Your task to perform on an android device: see sites visited before in the chrome app Image 0: 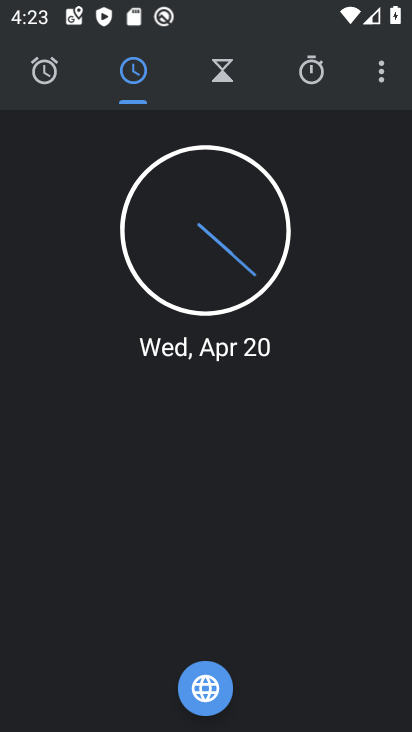
Step 0: press home button
Your task to perform on an android device: see sites visited before in the chrome app Image 1: 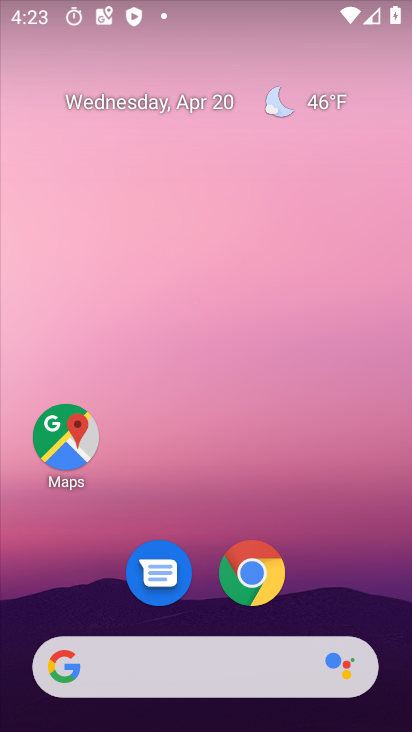
Step 1: click (263, 573)
Your task to perform on an android device: see sites visited before in the chrome app Image 2: 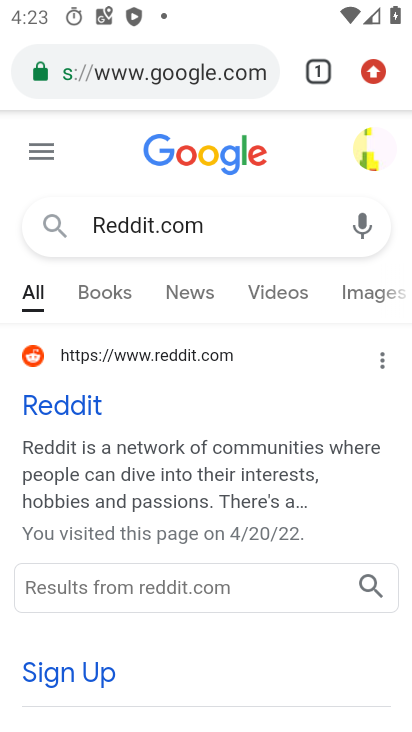
Step 2: click (369, 64)
Your task to perform on an android device: see sites visited before in the chrome app Image 3: 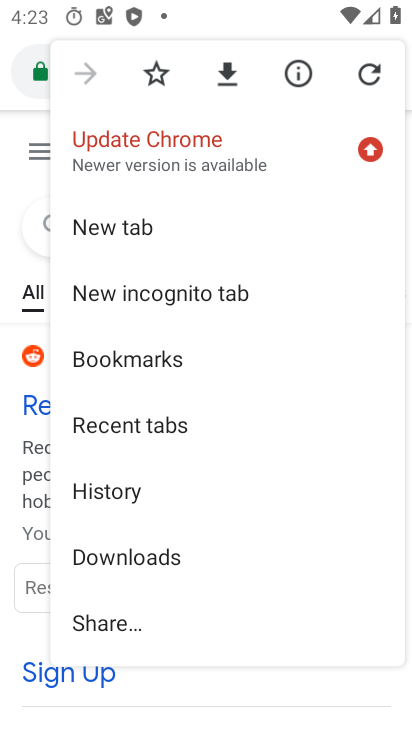
Step 3: drag from (238, 608) to (250, 299)
Your task to perform on an android device: see sites visited before in the chrome app Image 4: 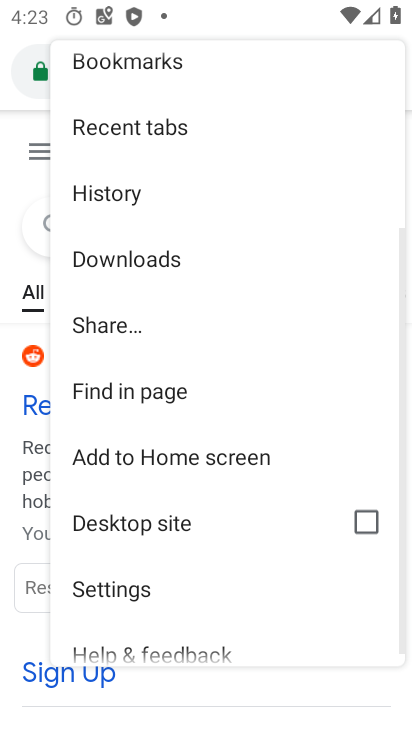
Step 4: click (124, 596)
Your task to perform on an android device: see sites visited before in the chrome app Image 5: 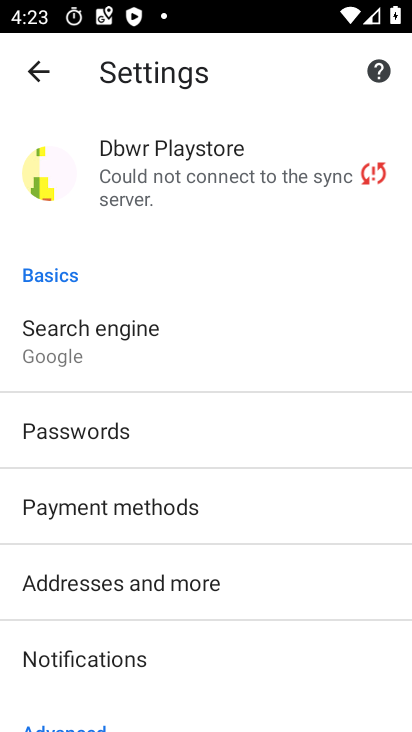
Step 5: press back button
Your task to perform on an android device: see sites visited before in the chrome app Image 6: 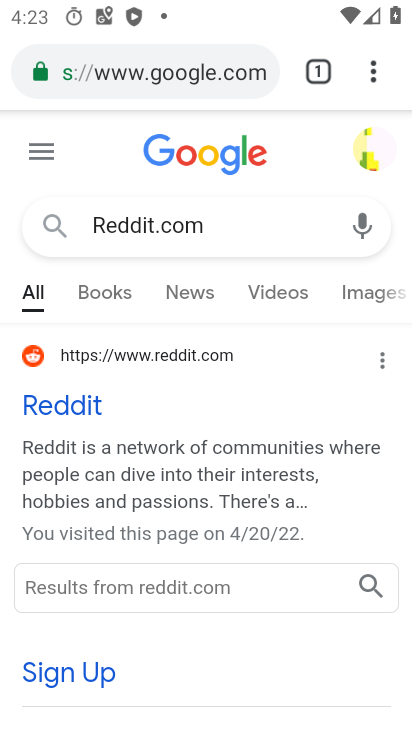
Step 6: click (372, 71)
Your task to perform on an android device: see sites visited before in the chrome app Image 7: 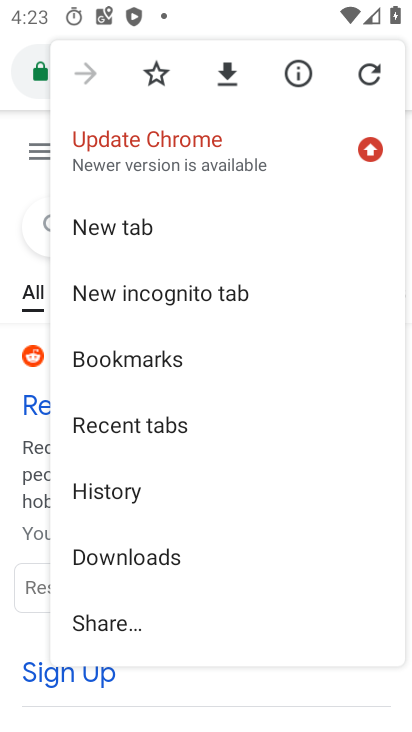
Step 7: click (117, 556)
Your task to perform on an android device: see sites visited before in the chrome app Image 8: 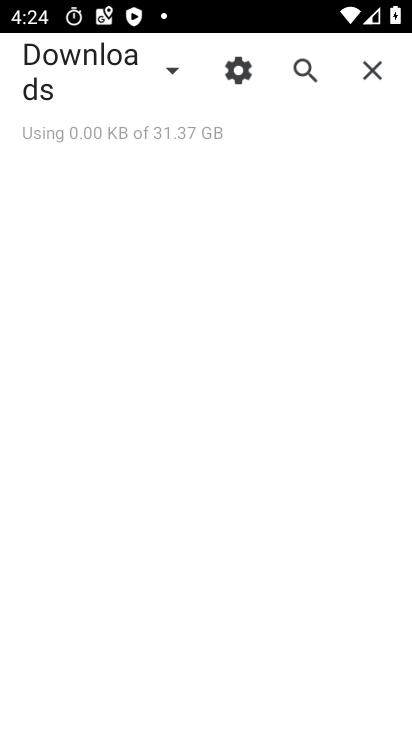
Step 8: task complete